Your task to perform on an android device: uninstall "Venmo" Image 0: 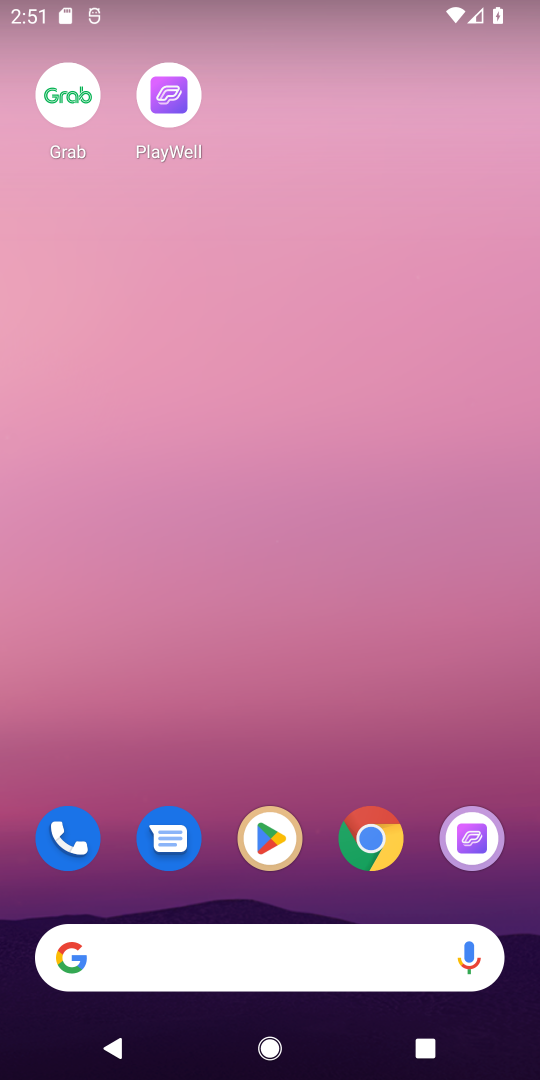
Step 0: click (269, 836)
Your task to perform on an android device: uninstall "Venmo" Image 1: 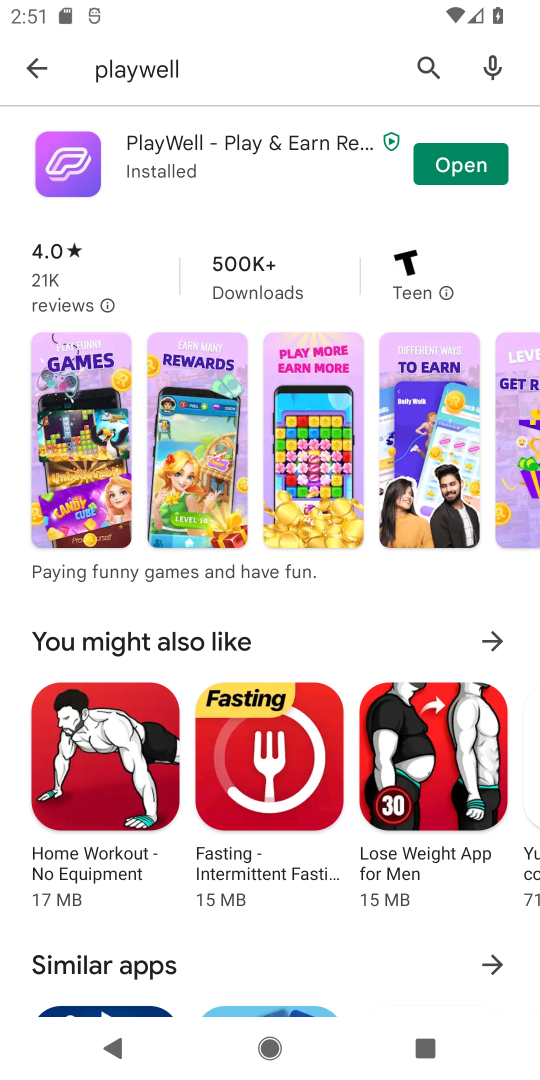
Step 1: click (41, 70)
Your task to perform on an android device: uninstall "Venmo" Image 2: 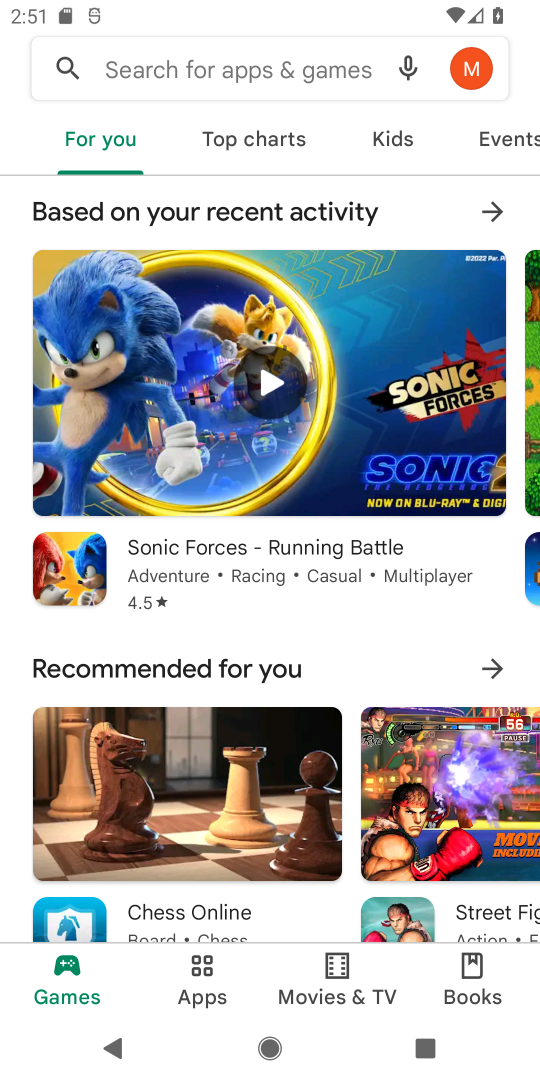
Step 2: click (236, 86)
Your task to perform on an android device: uninstall "Venmo" Image 3: 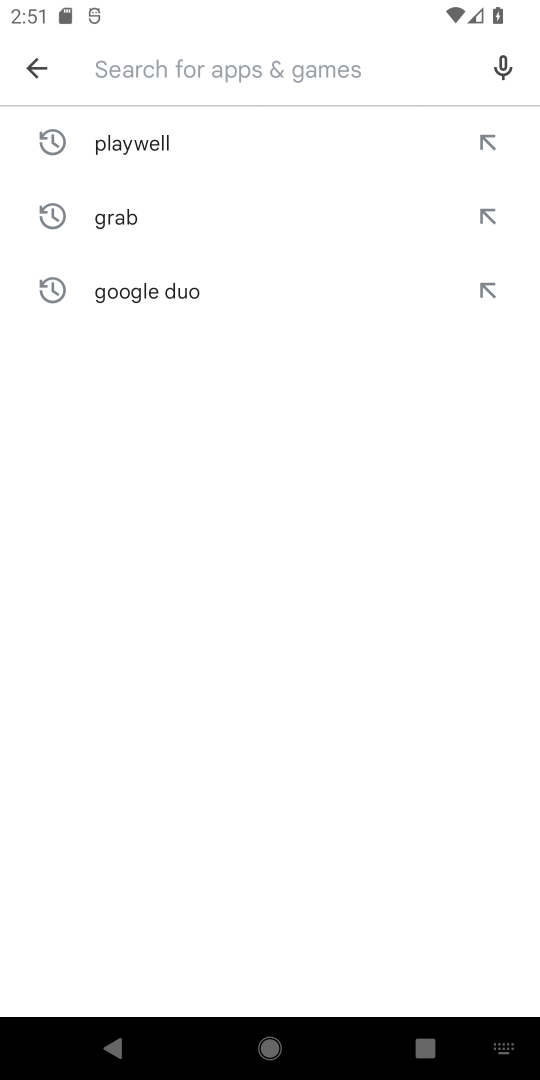
Step 3: type "Venmo"
Your task to perform on an android device: uninstall "Venmo" Image 4: 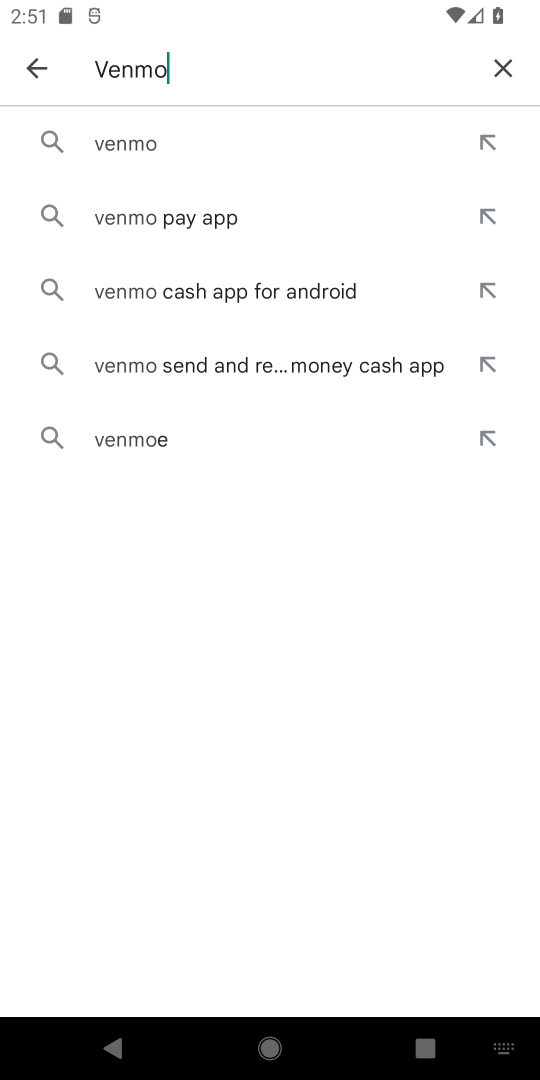
Step 4: click (144, 144)
Your task to perform on an android device: uninstall "Venmo" Image 5: 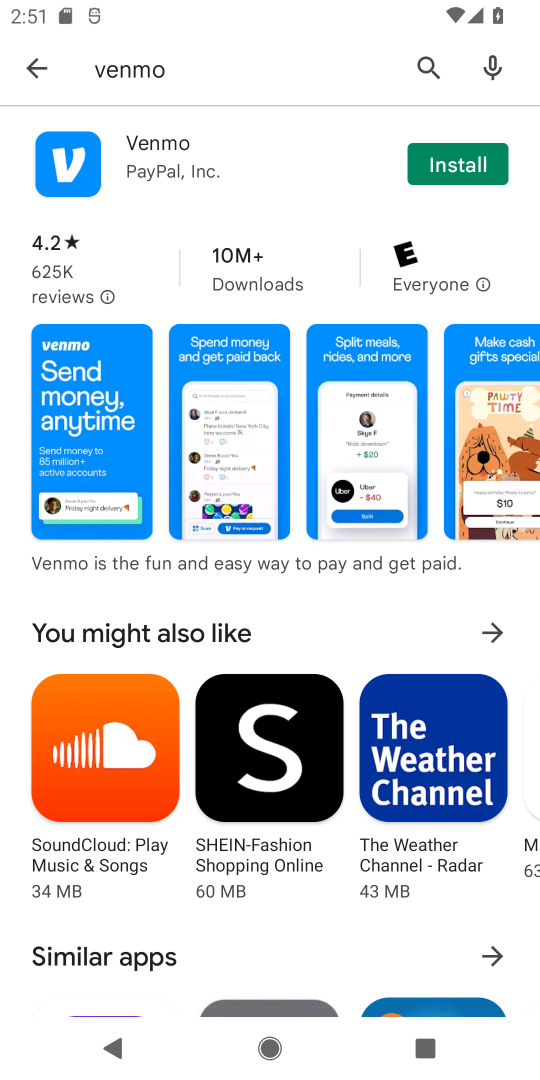
Step 5: task complete